Your task to perform on an android device: Open wifi settings Image 0: 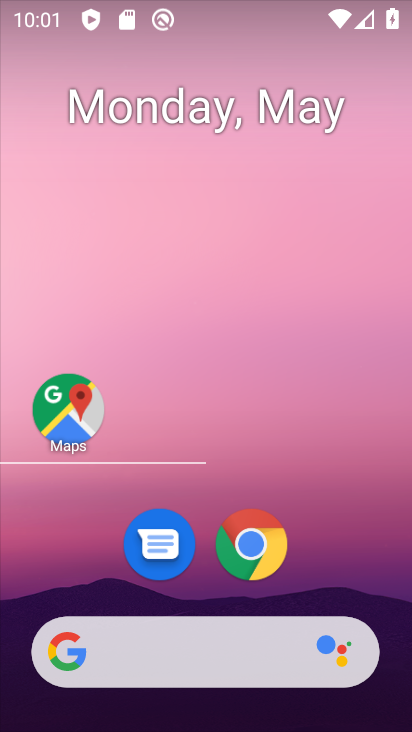
Step 0: drag from (217, 226) to (200, 86)
Your task to perform on an android device: Open wifi settings Image 1: 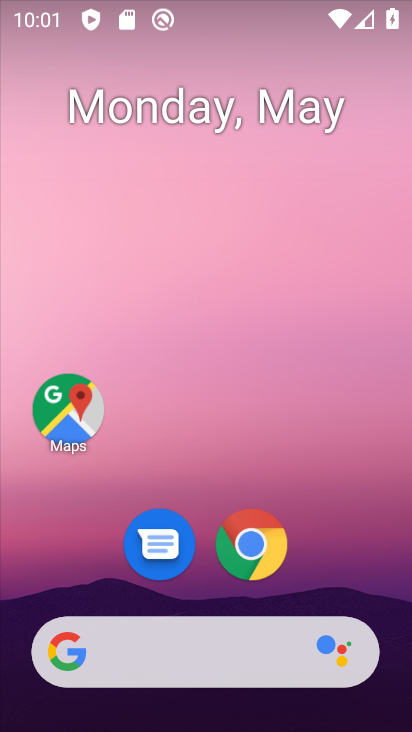
Step 1: drag from (234, 635) to (244, 48)
Your task to perform on an android device: Open wifi settings Image 2: 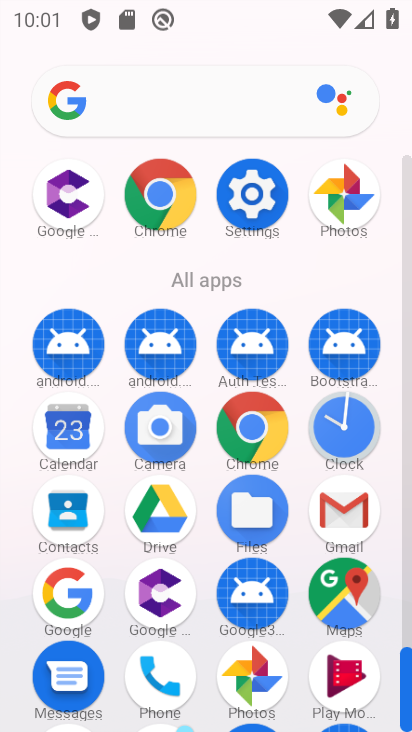
Step 2: click (246, 188)
Your task to perform on an android device: Open wifi settings Image 3: 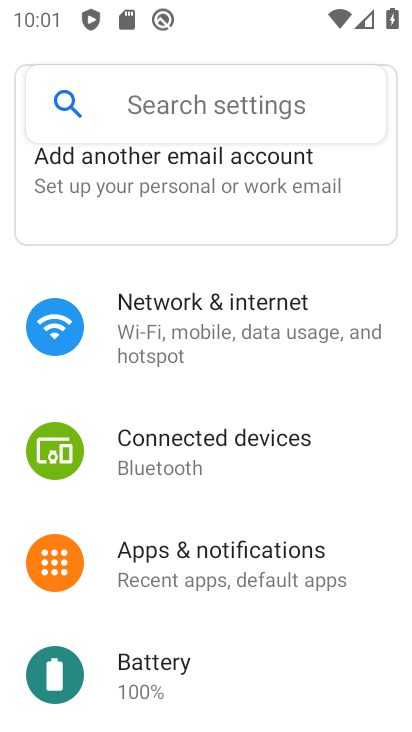
Step 3: click (237, 291)
Your task to perform on an android device: Open wifi settings Image 4: 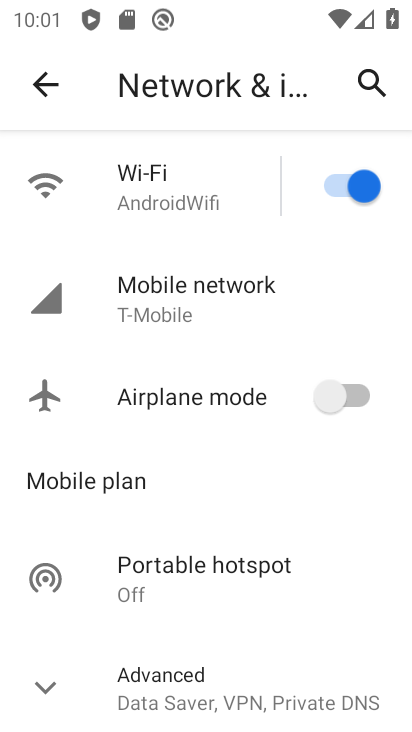
Step 4: task complete